Your task to perform on an android device: find snoozed emails in the gmail app Image 0: 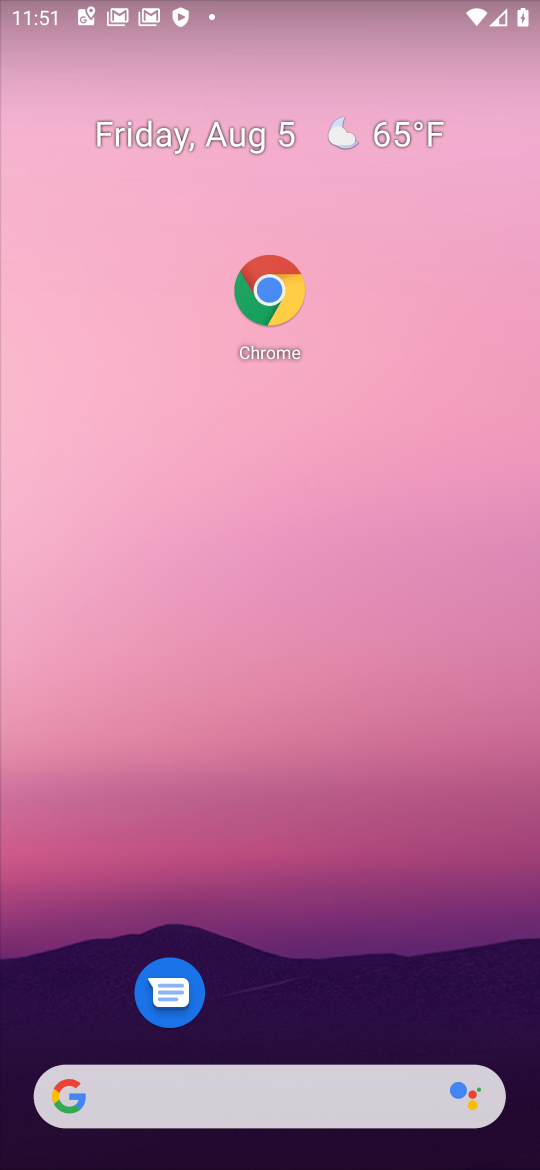
Step 0: drag from (296, 944) to (339, 140)
Your task to perform on an android device: find snoozed emails in the gmail app Image 1: 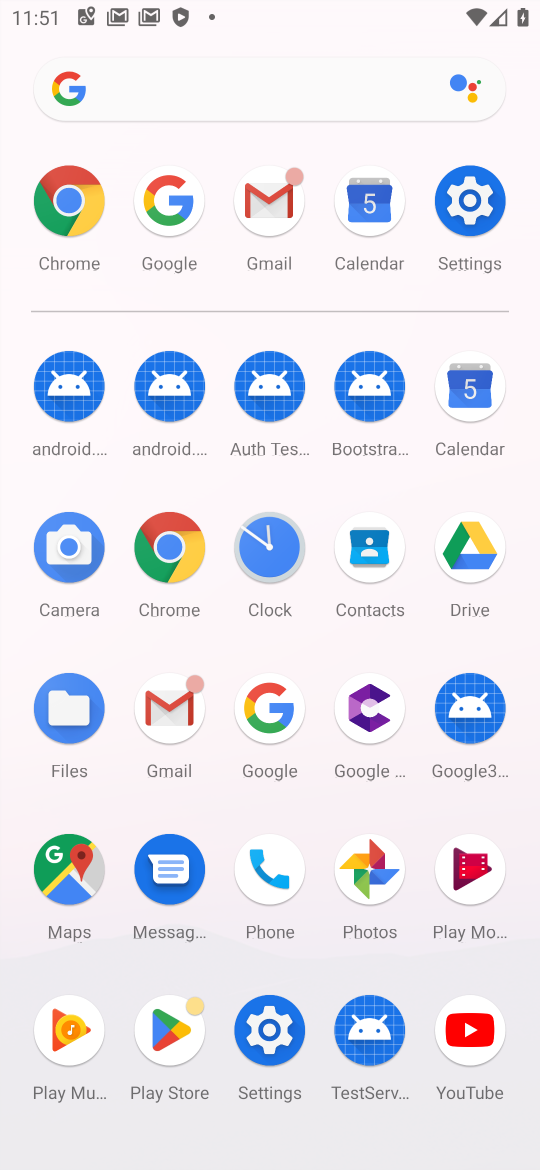
Step 1: click (279, 180)
Your task to perform on an android device: find snoozed emails in the gmail app Image 2: 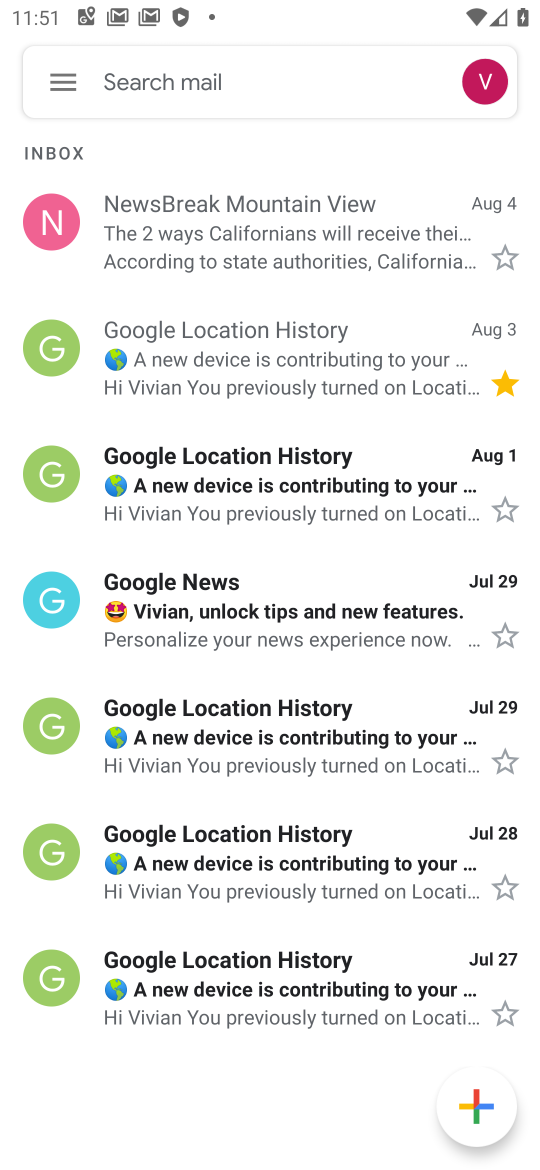
Step 2: click (85, 76)
Your task to perform on an android device: find snoozed emails in the gmail app Image 3: 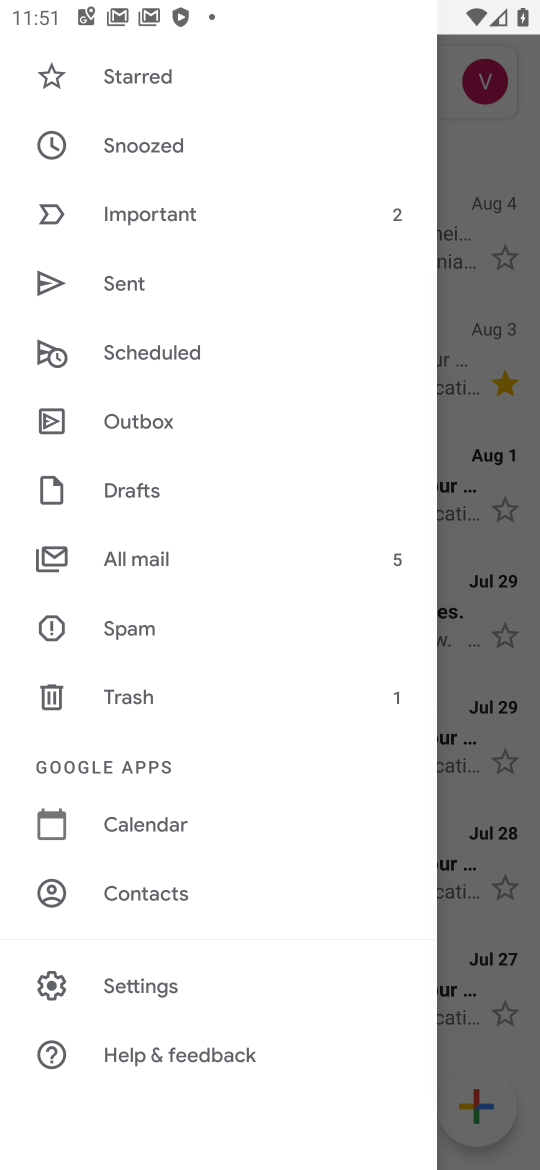
Step 3: click (130, 142)
Your task to perform on an android device: find snoozed emails in the gmail app Image 4: 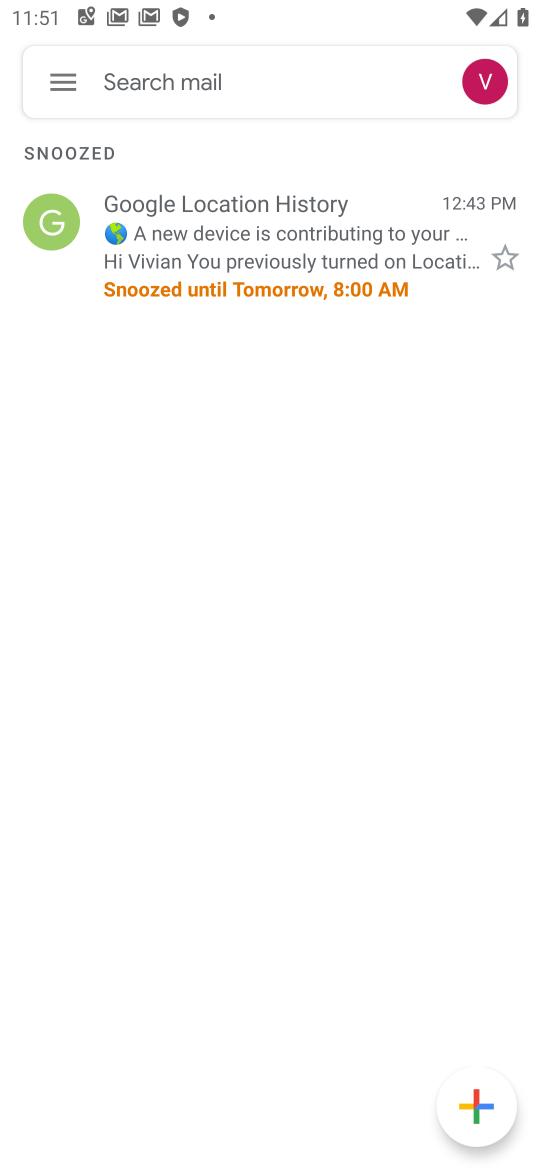
Step 4: task complete